Your task to perform on an android device: toggle sleep mode Image 0: 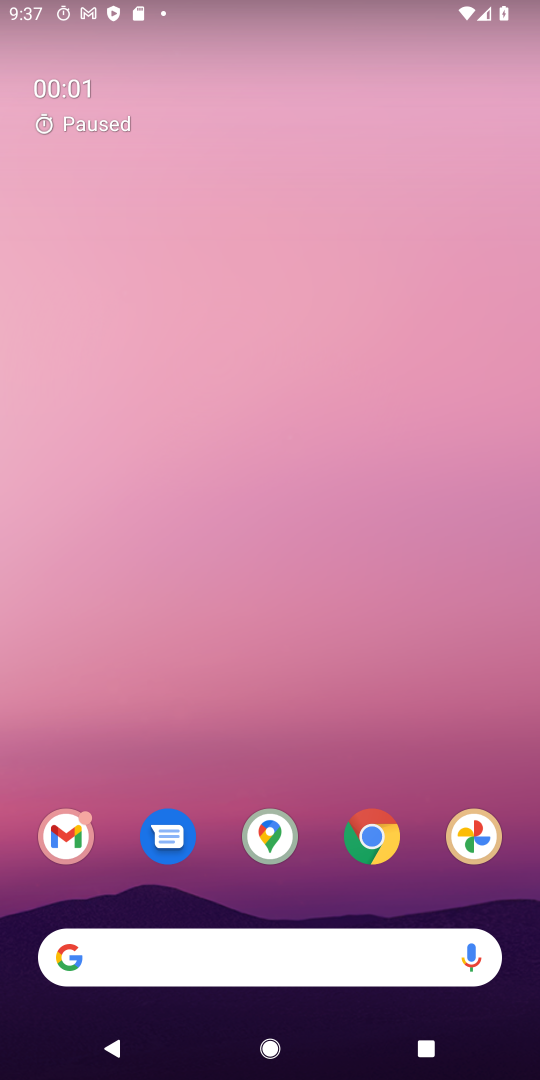
Step 0: drag from (256, 95) to (361, 924)
Your task to perform on an android device: toggle sleep mode Image 1: 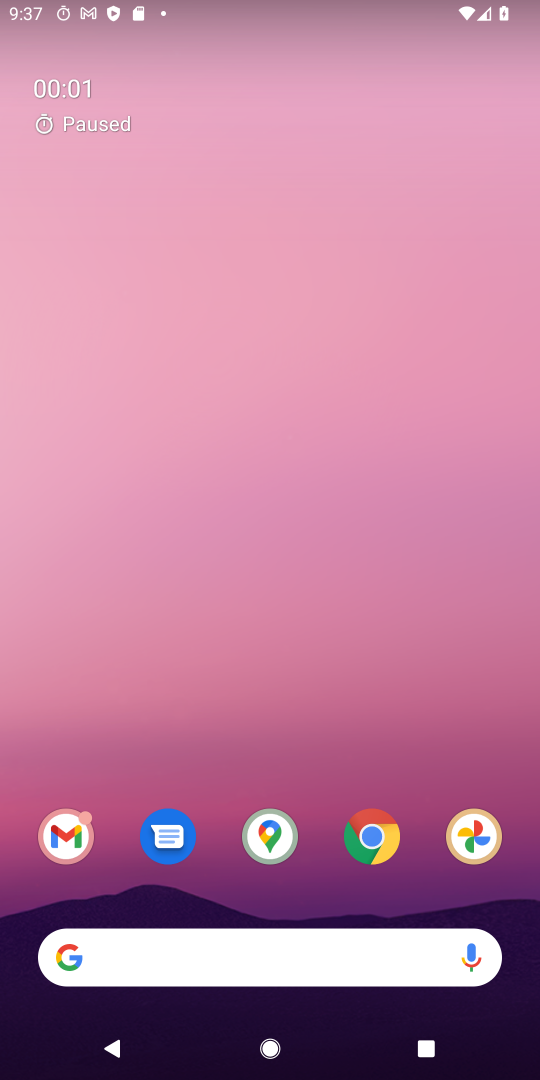
Step 1: task complete